Your task to perform on an android device: turn on improve location accuracy Image 0: 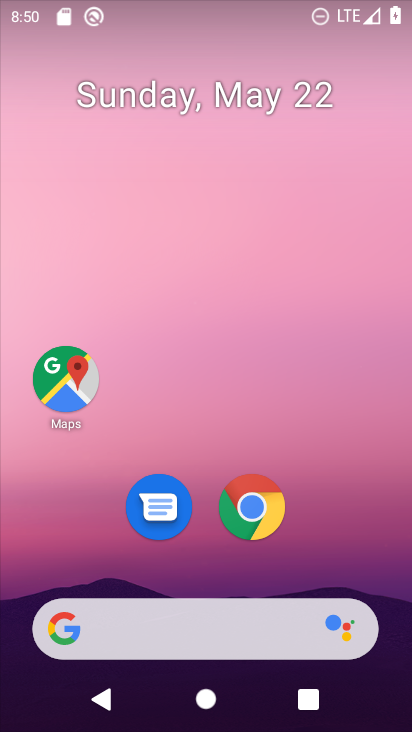
Step 0: click (82, 367)
Your task to perform on an android device: turn on improve location accuracy Image 1: 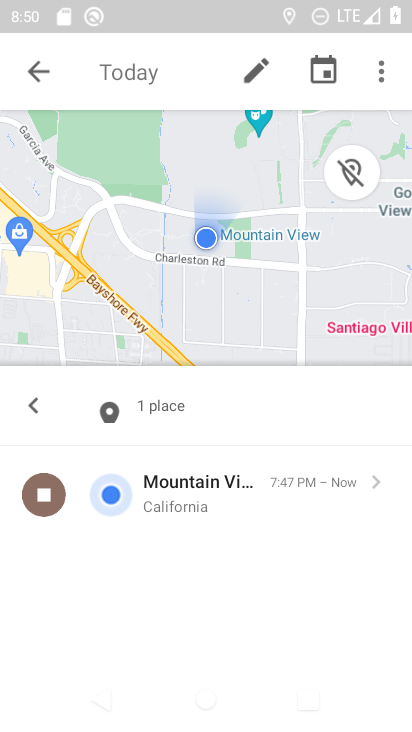
Step 1: click (43, 66)
Your task to perform on an android device: turn on improve location accuracy Image 2: 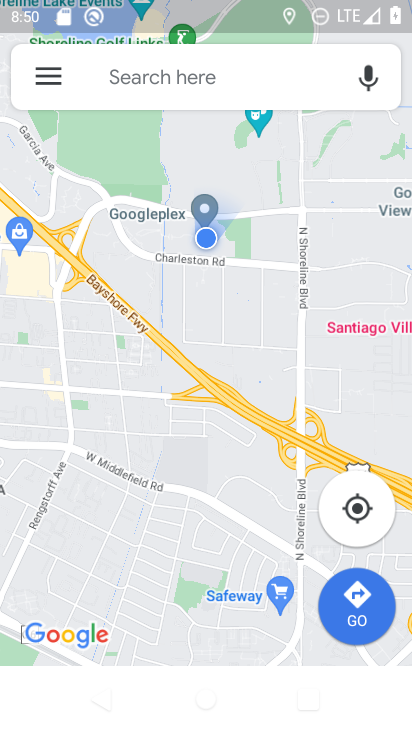
Step 2: click (43, 66)
Your task to perform on an android device: turn on improve location accuracy Image 3: 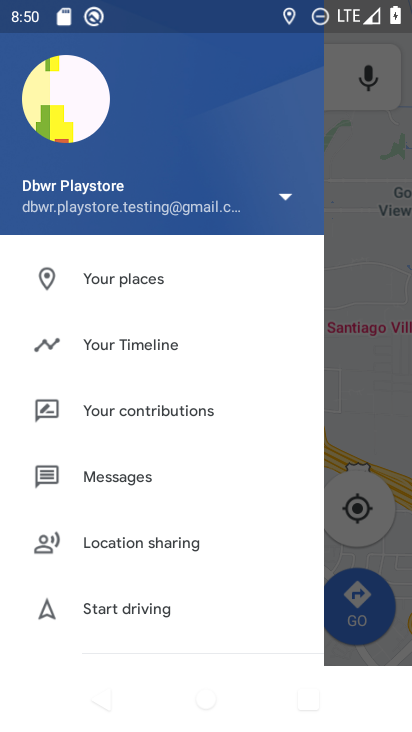
Step 3: click (181, 327)
Your task to perform on an android device: turn on improve location accuracy Image 4: 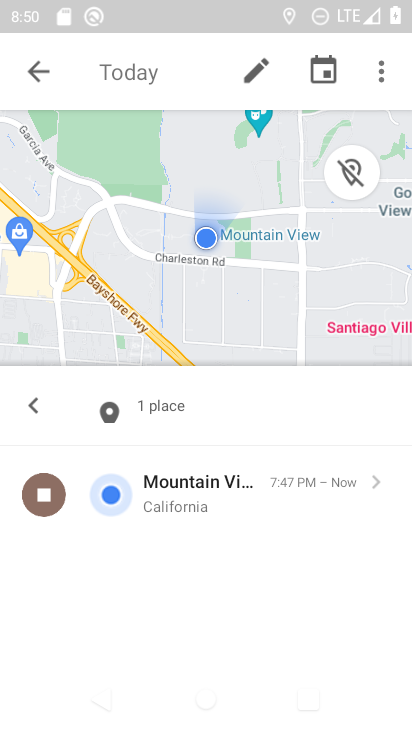
Step 4: click (388, 53)
Your task to perform on an android device: turn on improve location accuracy Image 5: 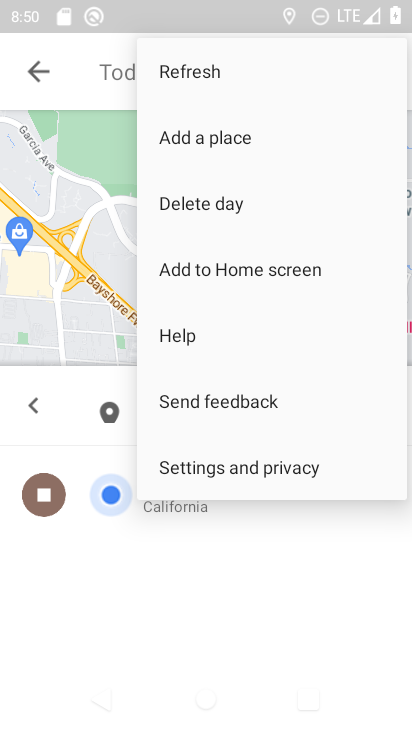
Step 5: click (311, 477)
Your task to perform on an android device: turn on improve location accuracy Image 6: 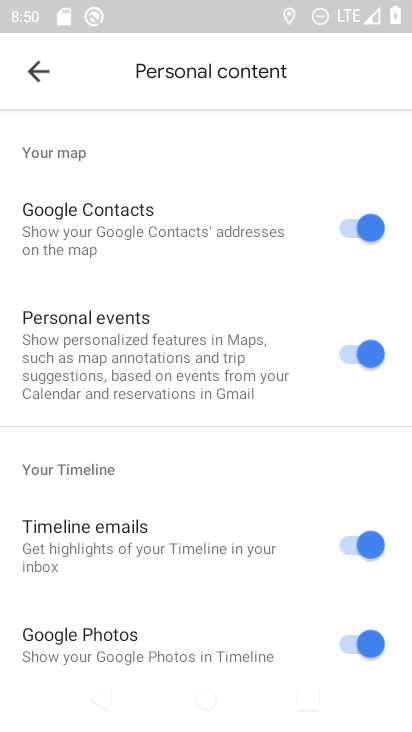
Step 6: drag from (197, 658) to (263, 51)
Your task to perform on an android device: turn on improve location accuracy Image 7: 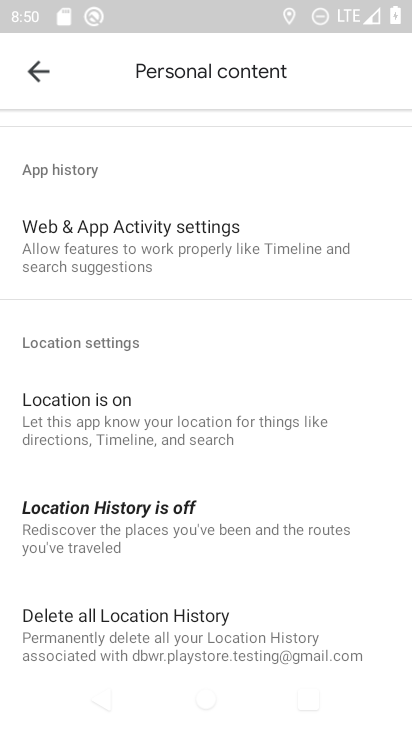
Step 7: drag from (185, 524) to (236, 0)
Your task to perform on an android device: turn on improve location accuracy Image 8: 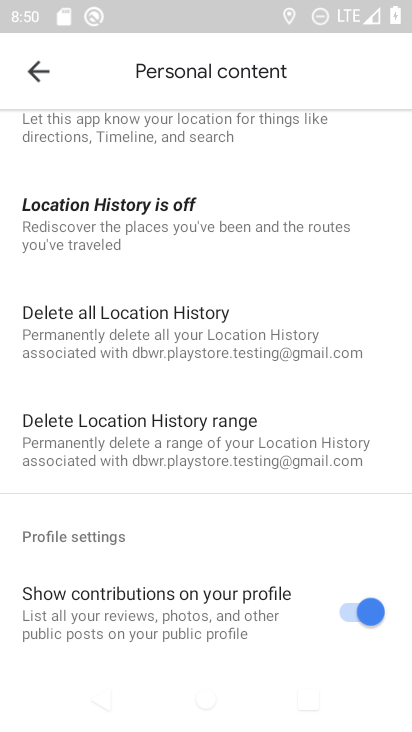
Step 8: drag from (167, 644) to (255, 351)
Your task to perform on an android device: turn on improve location accuracy Image 9: 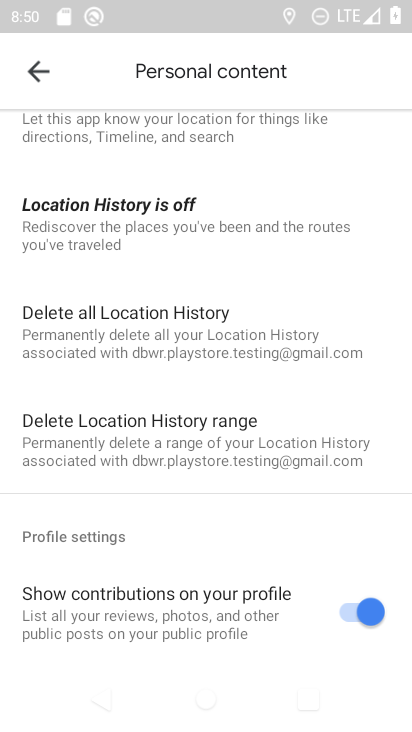
Step 9: press home button
Your task to perform on an android device: turn on improve location accuracy Image 10: 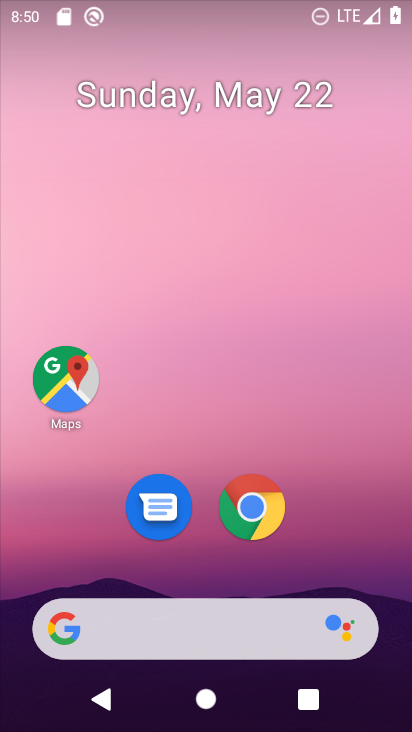
Step 10: click (68, 370)
Your task to perform on an android device: turn on improve location accuracy Image 11: 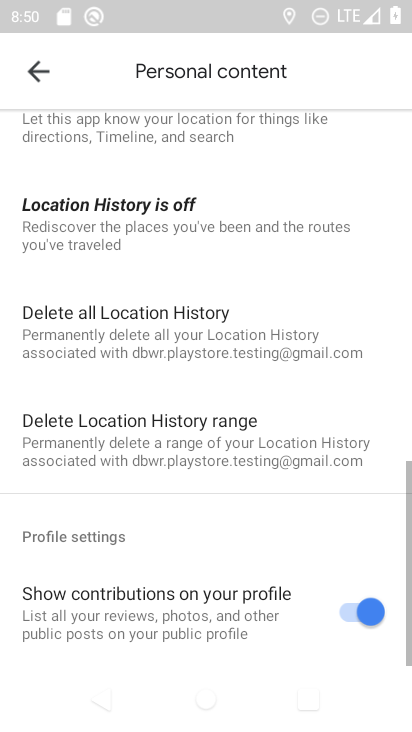
Step 11: click (42, 64)
Your task to perform on an android device: turn on improve location accuracy Image 12: 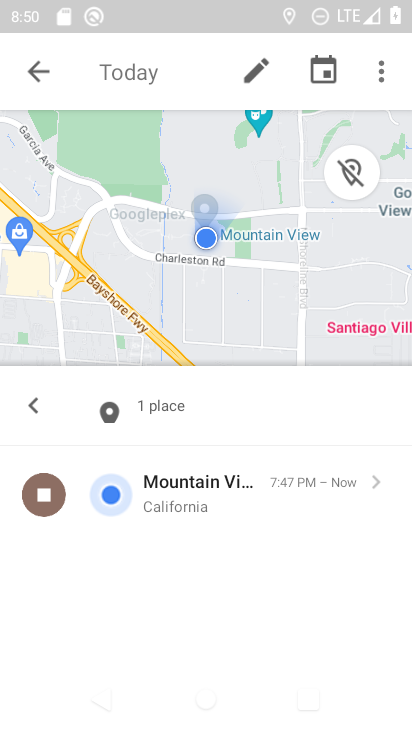
Step 12: click (42, 64)
Your task to perform on an android device: turn on improve location accuracy Image 13: 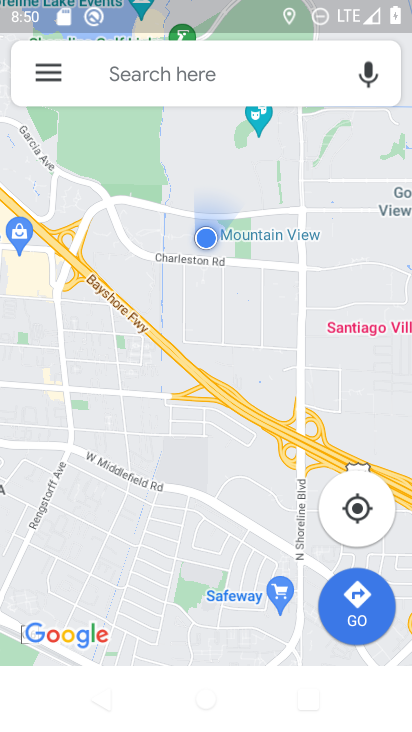
Step 13: click (42, 74)
Your task to perform on an android device: turn on improve location accuracy Image 14: 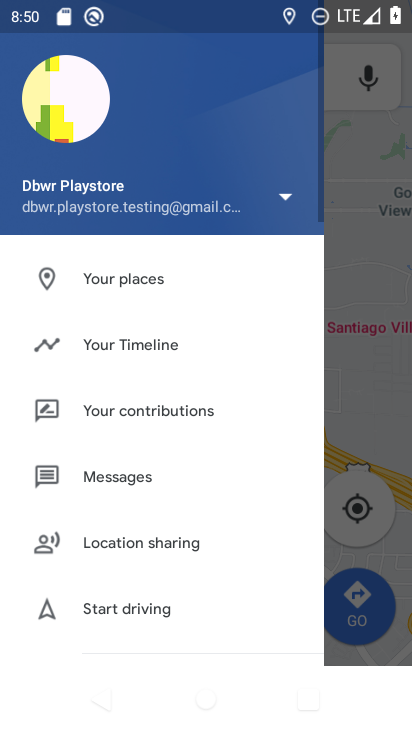
Step 14: drag from (99, 294) to (105, 24)
Your task to perform on an android device: turn on improve location accuracy Image 15: 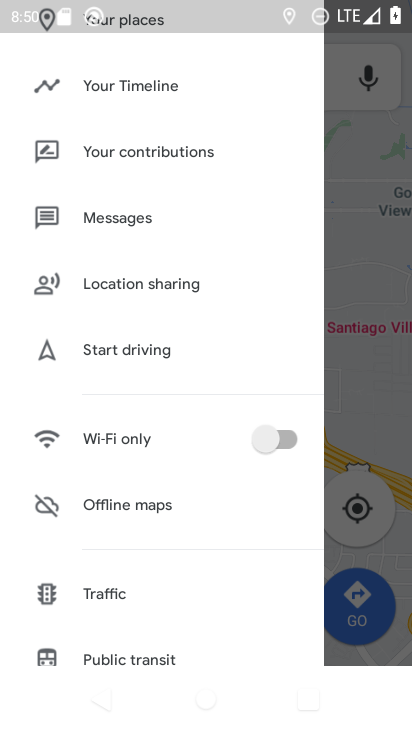
Step 15: drag from (134, 622) to (56, 11)
Your task to perform on an android device: turn on improve location accuracy Image 16: 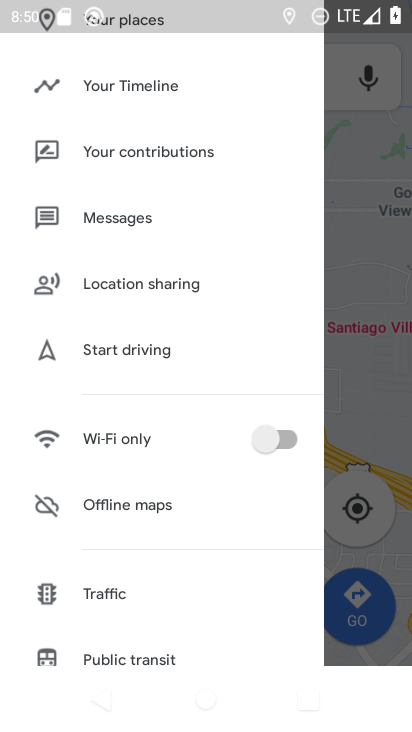
Step 16: drag from (126, 608) to (86, 72)
Your task to perform on an android device: turn on improve location accuracy Image 17: 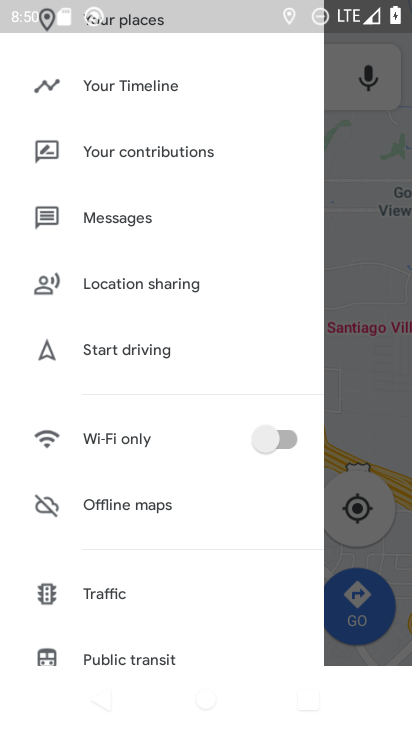
Step 17: drag from (137, 610) to (122, 43)
Your task to perform on an android device: turn on improve location accuracy Image 18: 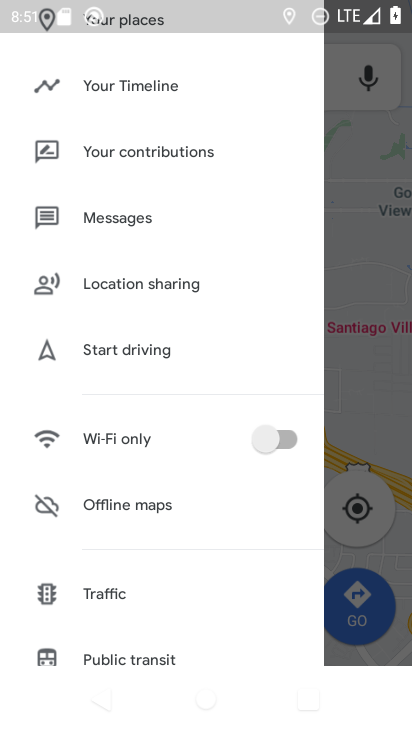
Step 18: drag from (155, 642) to (117, 14)
Your task to perform on an android device: turn on improve location accuracy Image 19: 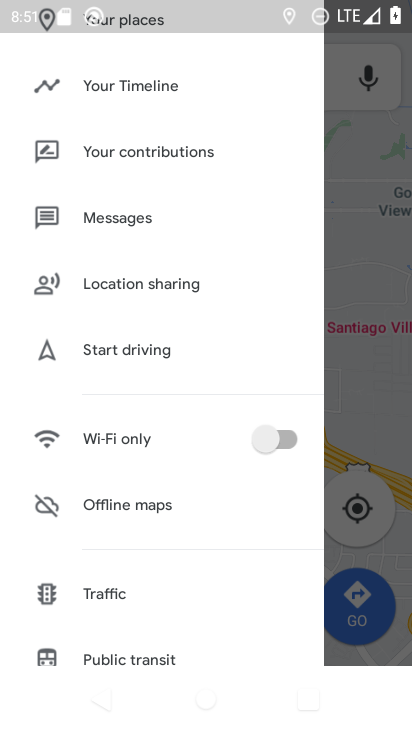
Step 19: drag from (122, 547) to (228, 79)
Your task to perform on an android device: turn on improve location accuracy Image 20: 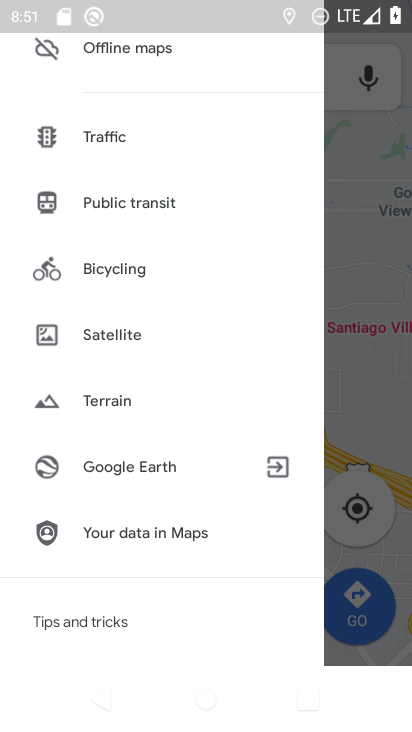
Step 20: drag from (206, 502) to (146, 0)
Your task to perform on an android device: turn on improve location accuracy Image 21: 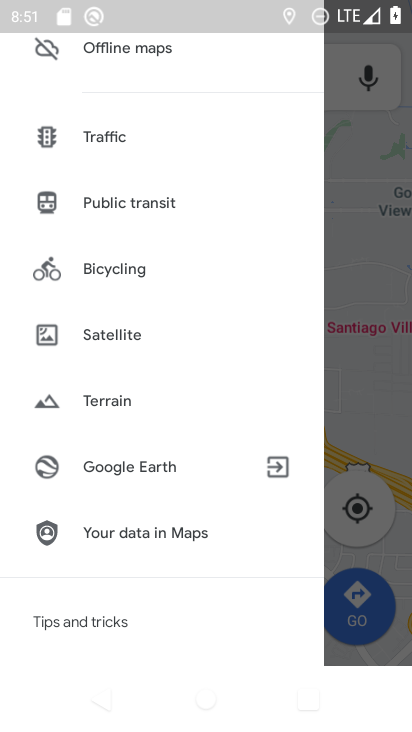
Step 21: drag from (62, 601) to (133, 31)
Your task to perform on an android device: turn on improve location accuracy Image 22: 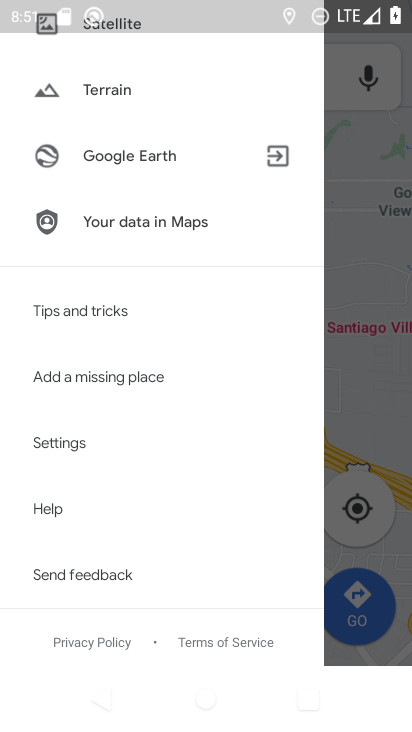
Step 22: click (75, 434)
Your task to perform on an android device: turn on improve location accuracy Image 23: 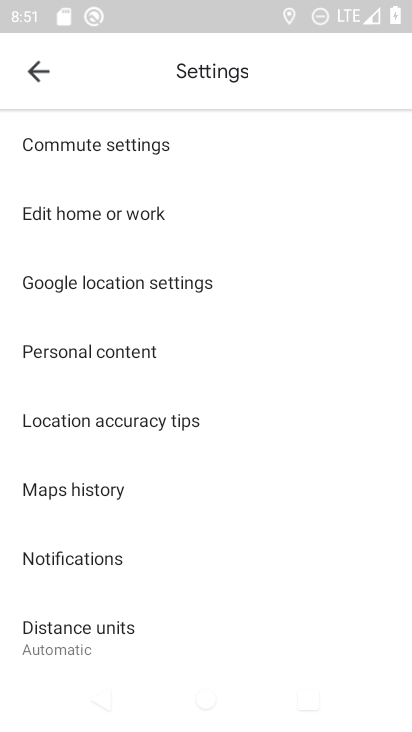
Step 23: click (132, 272)
Your task to perform on an android device: turn on improve location accuracy Image 24: 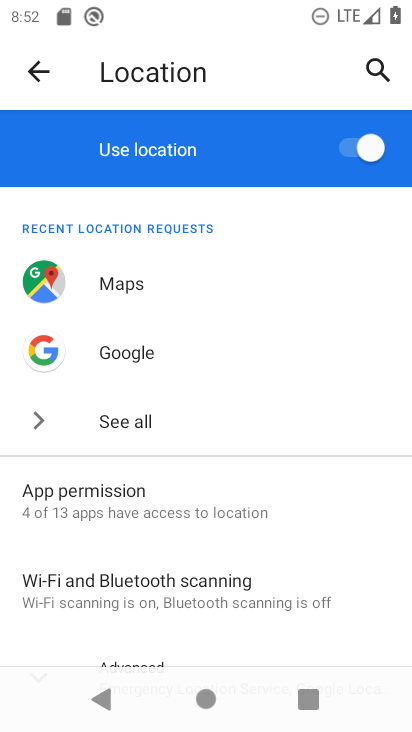
Step 24: drag from (297, 600) to (221, 156)
Your task to perform on an android device: turn on improve location accuracy Image 25: 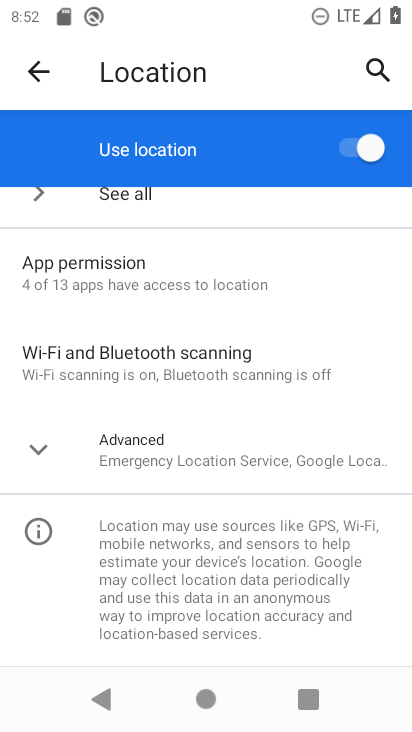
Step 25: click (263, 440)
Your task to perform on an android device: turn on improve location accuracy Image 26: 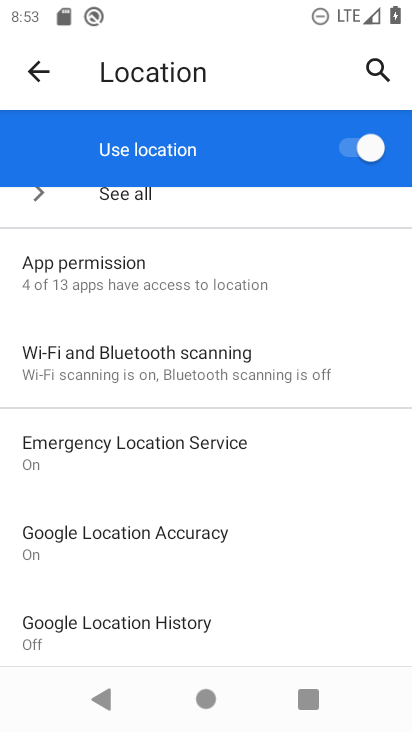
Step 26: click (212, 522)
Your task to perform on an android device: turn on improve location accuracy Image 27: 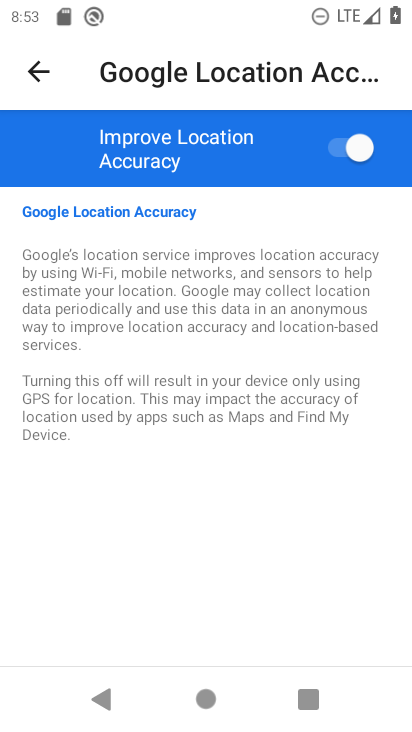
Step 27: click (372, 150)
Your task to perform on an android device: turn on improve location accuracy Image 28: 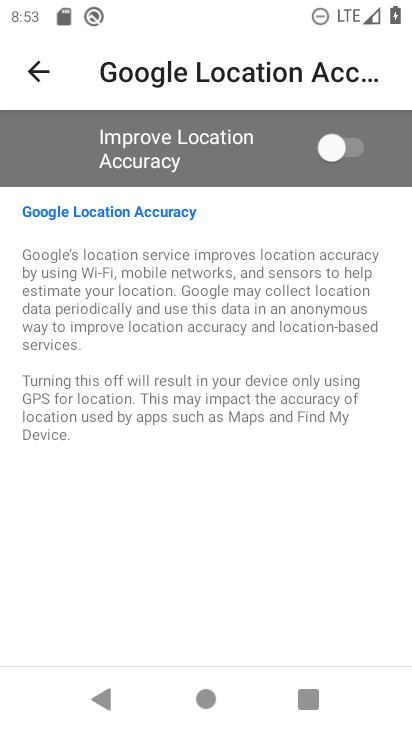
Step 28: task complete